Your task to perform on an android device: Open Yahoo.com Image 0: 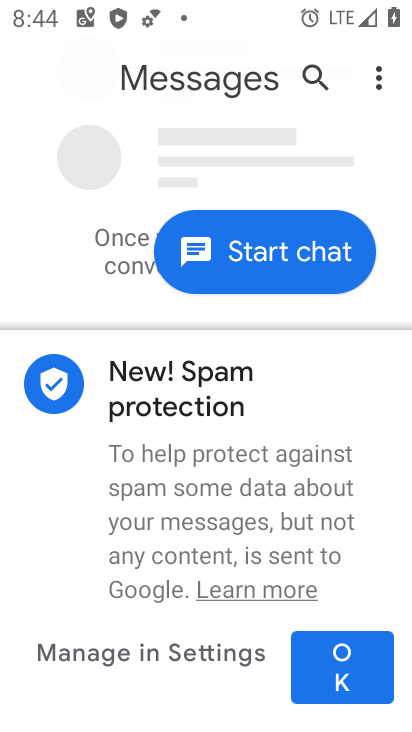
Step 0: press home button
Your task to perform on an android device: Open Yahoo.com Image 1: 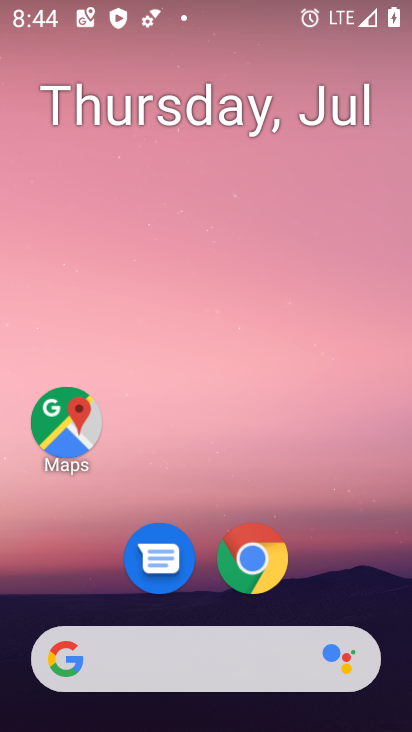
Step 1: click (283, 575)
Your task to perform on an android device: Open Yahoo.com Image 2: 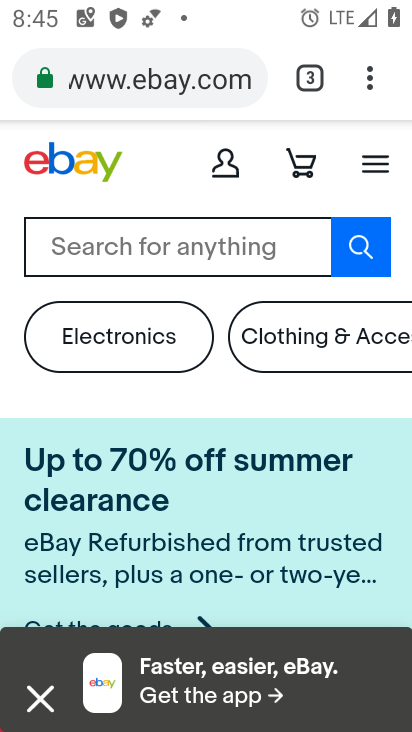
Step 2: click (174, 76)
Your task to perform on an android device: Open Yahoo.com Image 3: 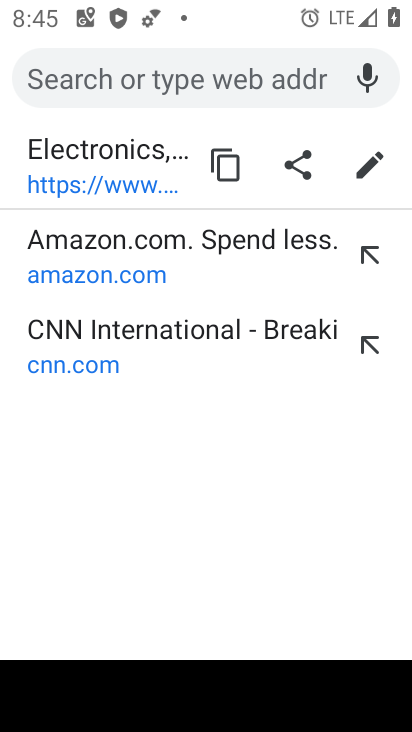
Step 3: type "yahoo"
Your task to perform on an android device: Open Yahoo.com Image 4: 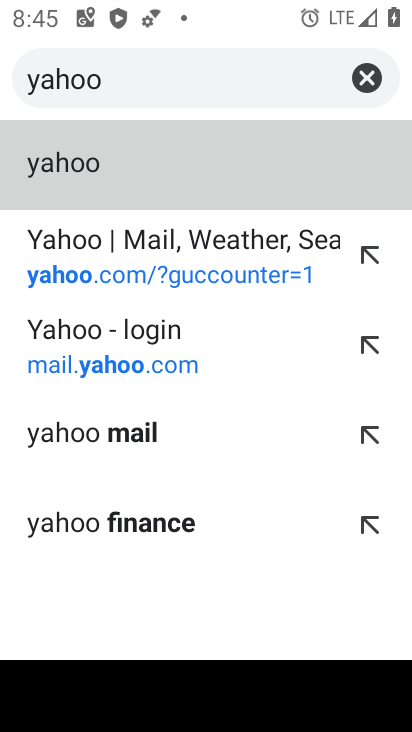
Step 4: click (114, 277)
Your task to perform on an android device: Open Yahoo.com Image 5: 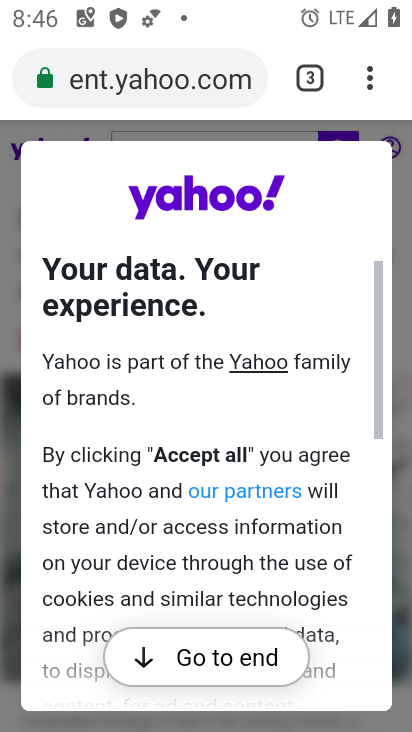
Step 5: task complete